Your task to perform on an android device: check data usage Image 0: 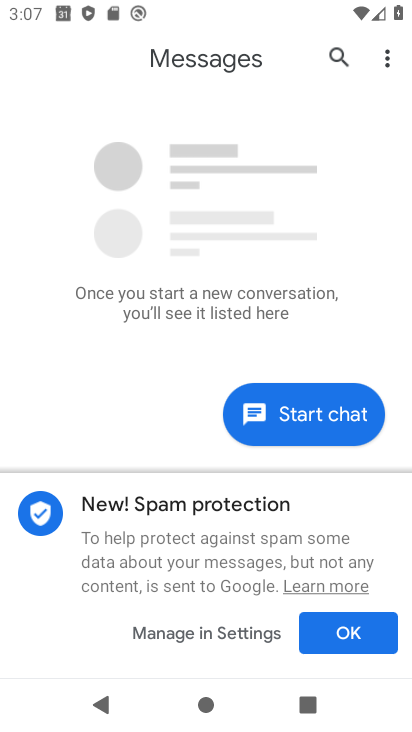
Step 0: drag from (173, 583) to (159, 516)
Your task to perform on an android device: check data usage Image 1: 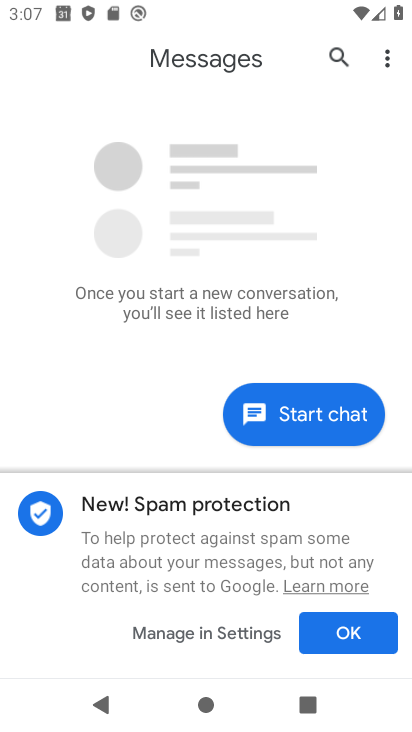
Step 1: drag from (252, 10) to (88, 683)
Your task to perform on an android device: check data usage Image 2: 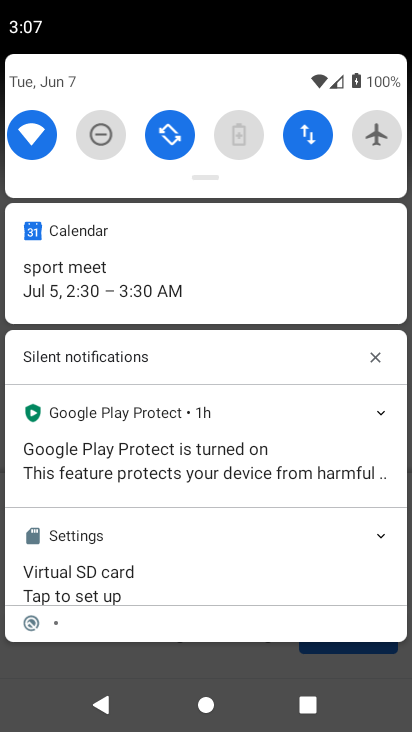
Step 2: click (312, 128)
Your task to perform on an android device: check data usage Image 3: 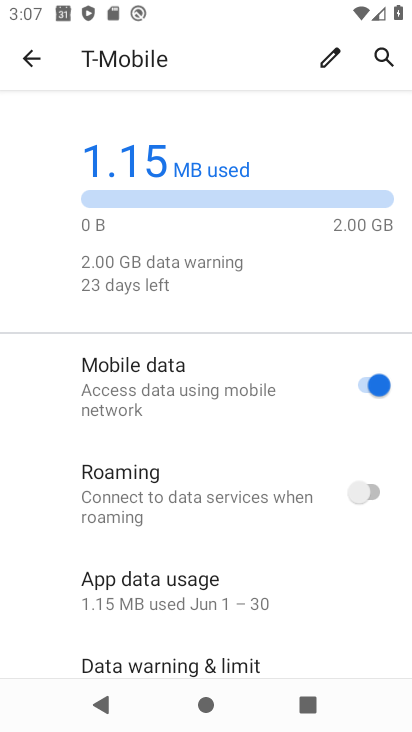
Step 3: task complete